Your task to perform on an android device: Clear the shopping cart on amazon. Search for "usb-c" on amazon, select the first entry, add it to the cart, then select checkout. Image 0: 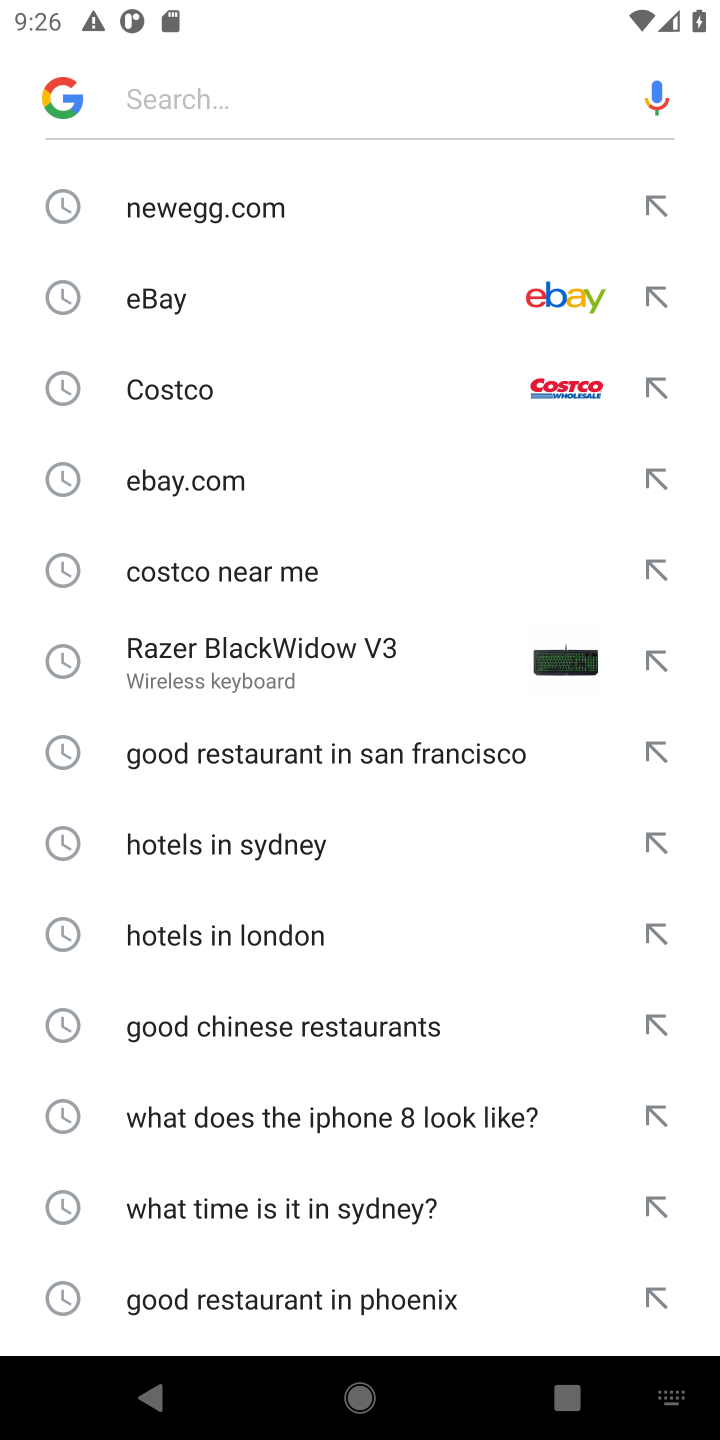
Step 0: click (198, 112)
Your task to perform on an android device: Clear the shopping cart on amazon. Search for "usb-c" on amazon, select the first entry, add it to the cart, then select checkout. Image 1: 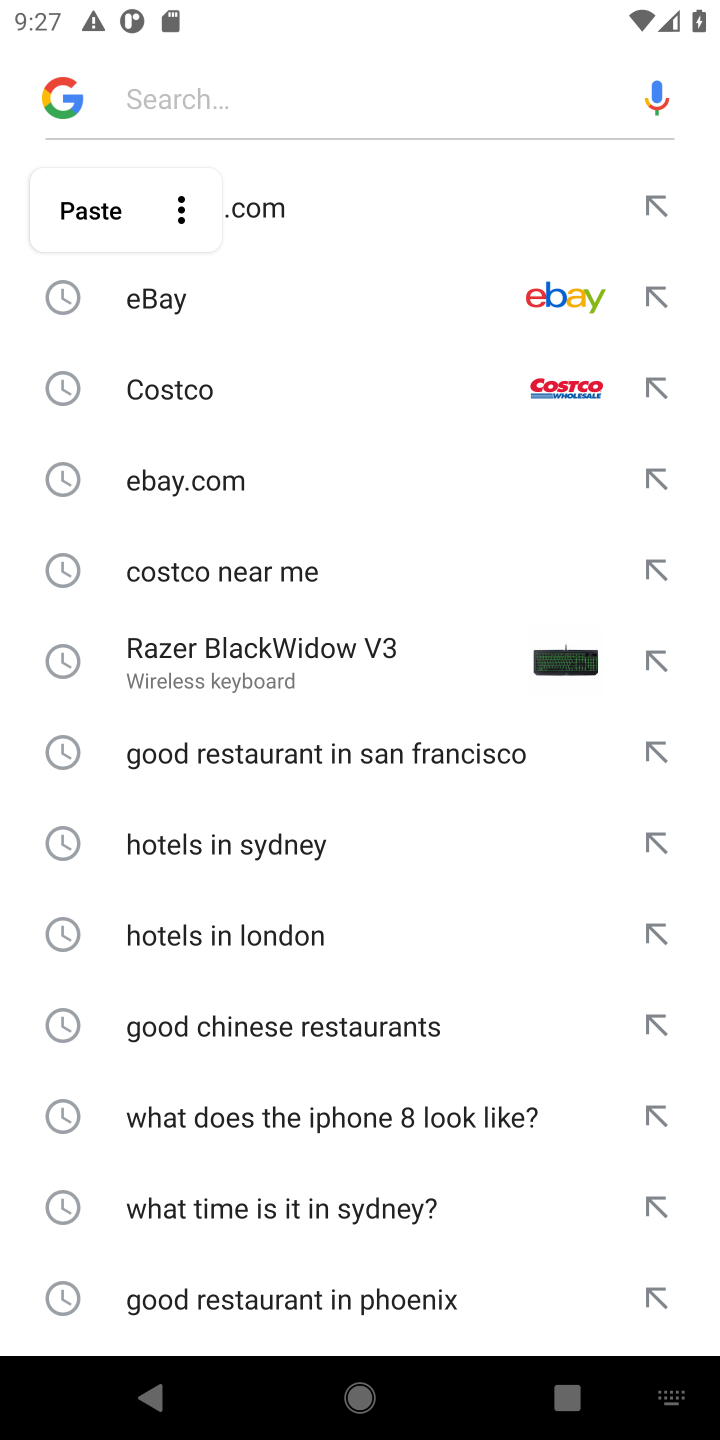
Step 1: type "amazon.com"
Your task to perform on an android device: Clear the shopping cart on amazon. Search for "usb-c" on amazon, select the first entry, add it to the cart, then select checkout. Image 2: 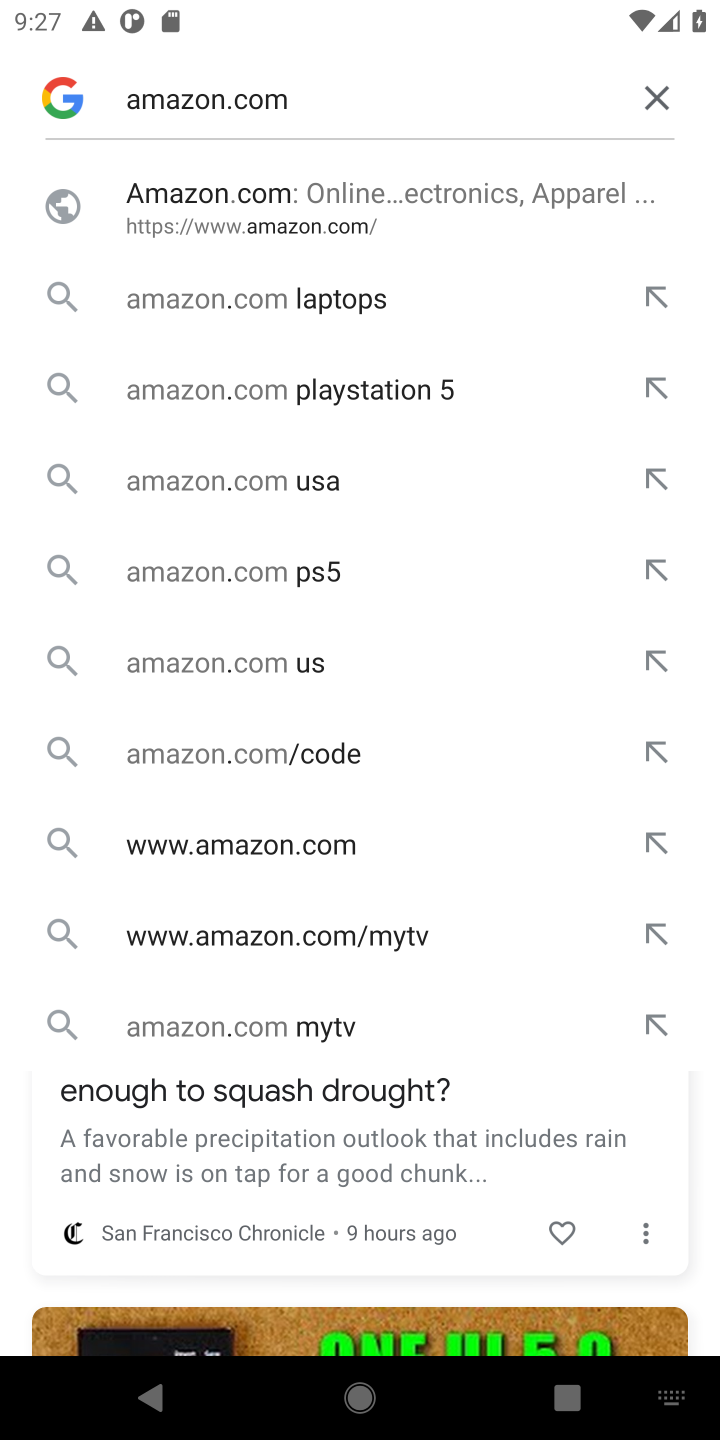
Step 2: click (198, 214)
Your task to perform on an android device: Clear the shopping cart on amazon. Search for "usb-c" on amazon, select the first entry, add it to the cart, then select checkout. Image 3: 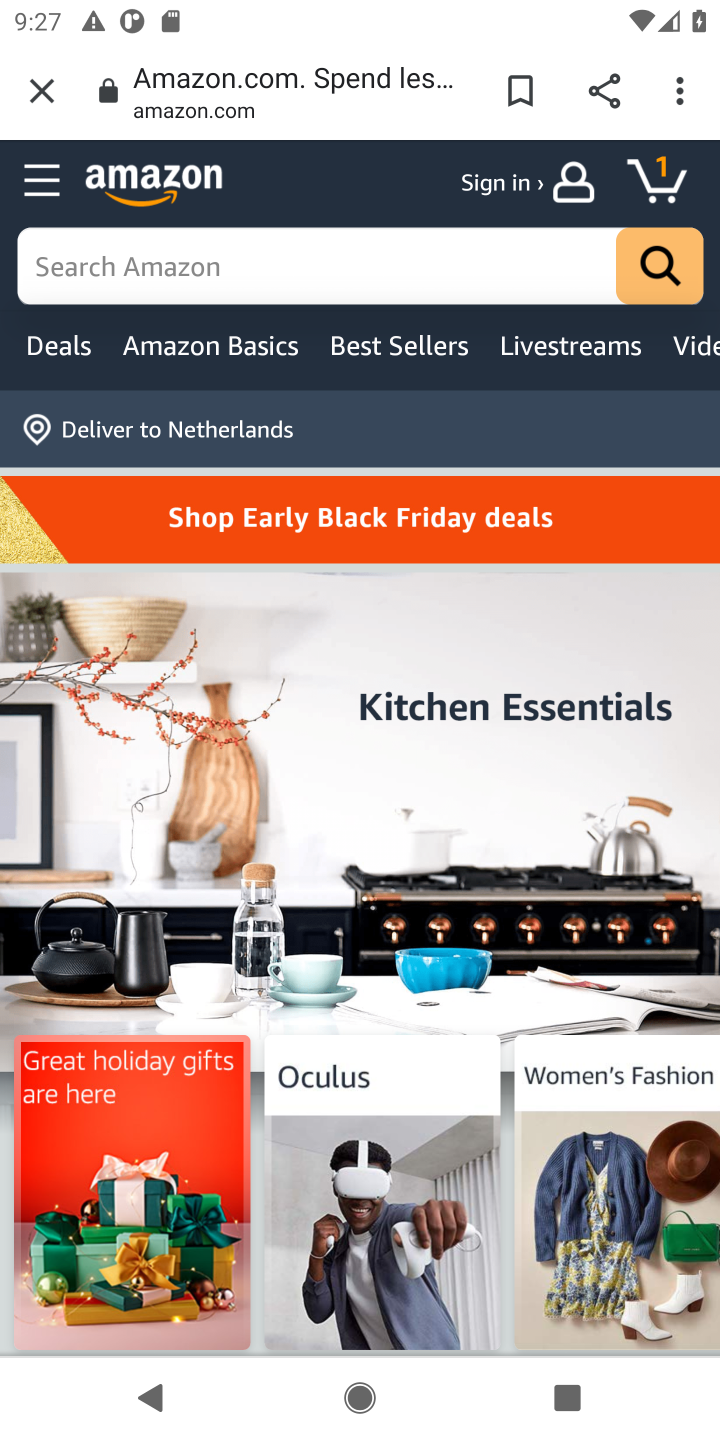
Step 3: click (321, 265)
Your task to perform on an android device: Clear the shopping cart on amazon. Search for "usb-c" on amazon, select the first entry, add it to the cart, then select checkout. Image 4: 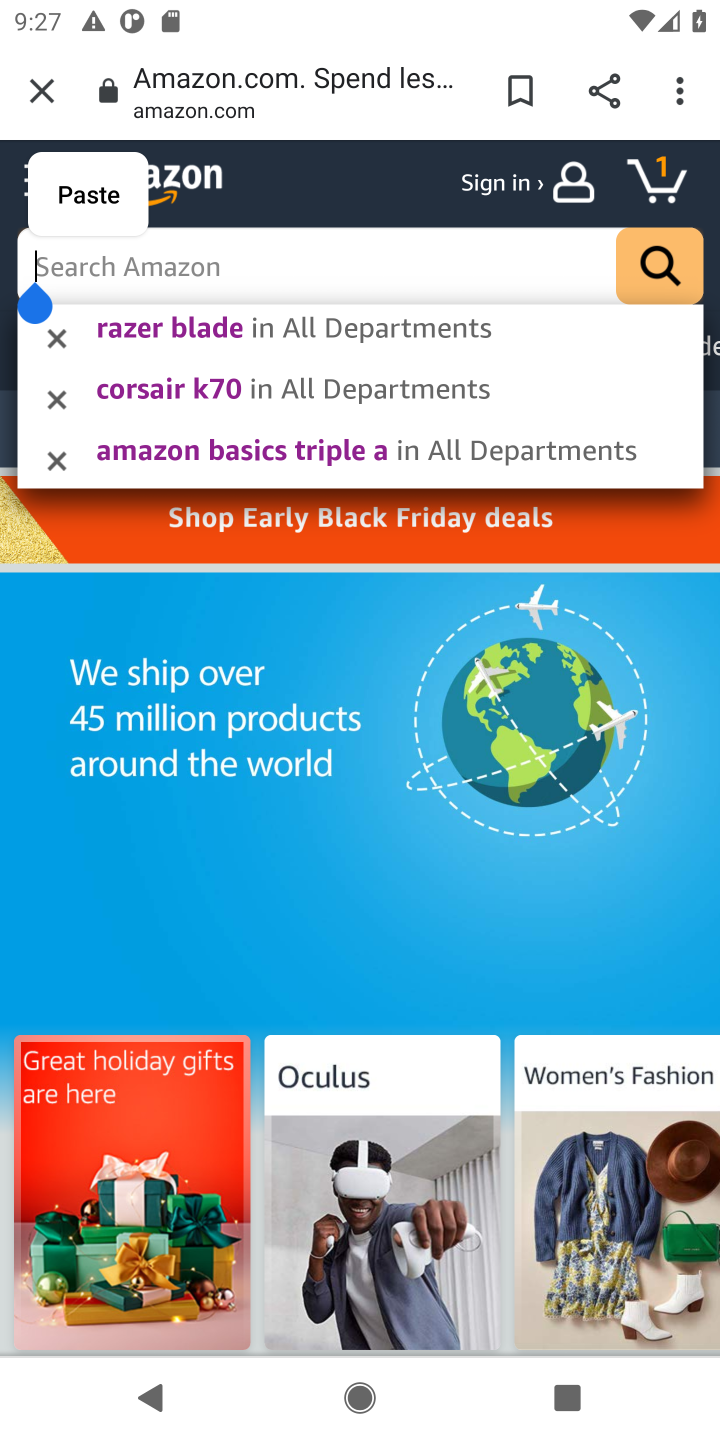
Step 4: type "usb-c"
Your task to perform on an android device: Clear the shopping cart on amazon. Search for "usb-c" on amazon, select the first entry, add it to the cart, then select checkout. Image 5: 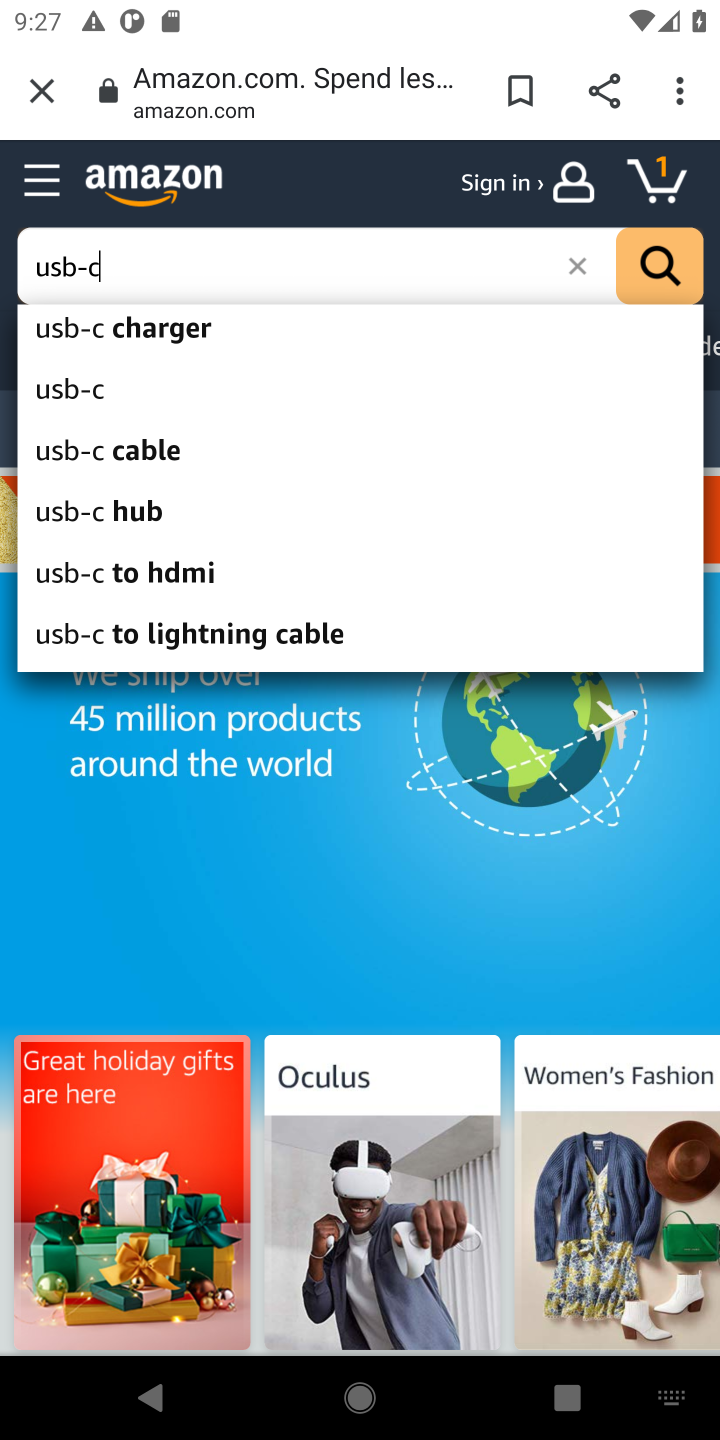
Step 5: click (97, 402)
Your task to perform on an android device: Clear the shopping cart on amazon. Search for "usb-c" on amazon, select the first entry, add it to the cart, then select checkout. Image 6: 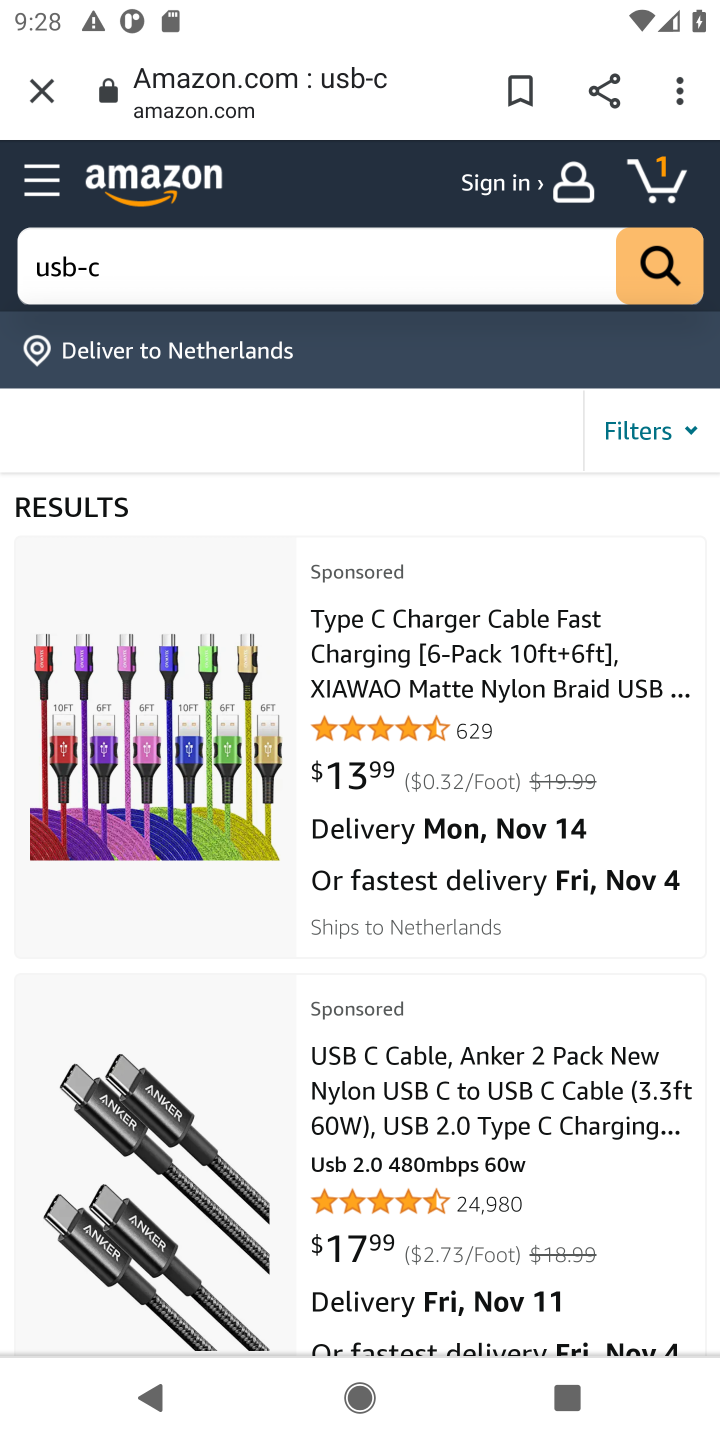
Step 6: click (342, 728)
Your task to perform on an android device: Clear the shopping cart on amazon. Search for "usb-c" on amazon, select the first entry, add it to the cart, then select checkout. Image 7: 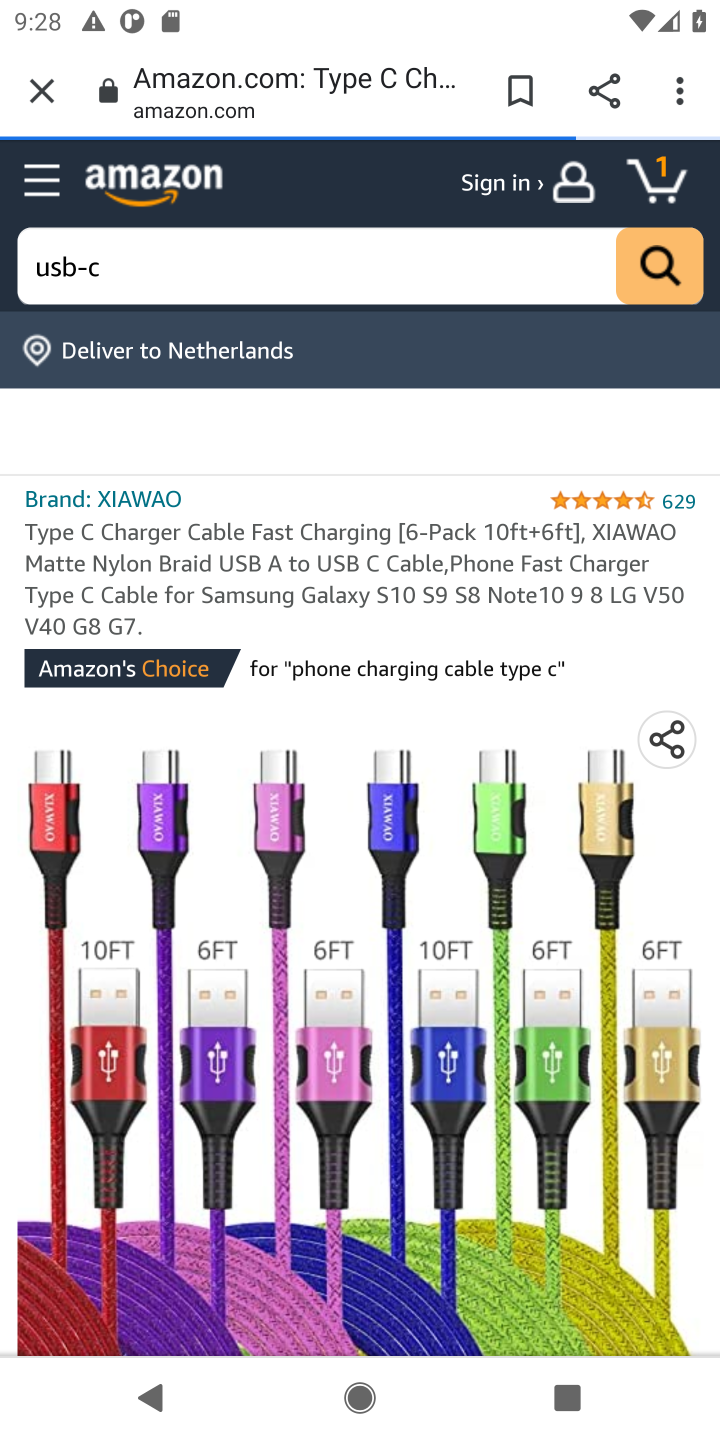
Step 7: drag from (264, 1164) to (267, 712)
Your task to perform on an android device: Clear the shopping cart on amazon. Search for "usb-c" on amazon, select the first entry, add it to the cart, then select checkout. Image 8: 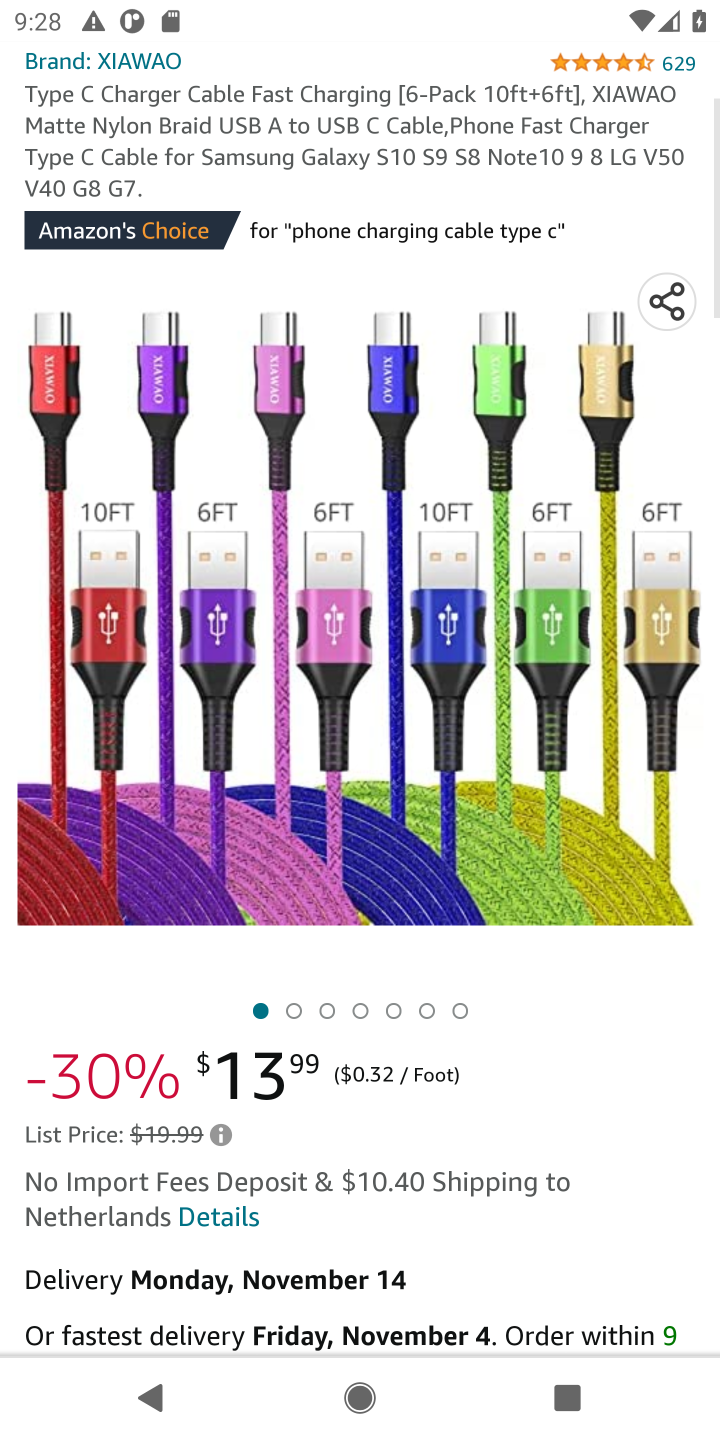
Step 8: drag from (270, 1256) to (308, 602)
Your task to perform on an android device: Clear the shopping cart on amazon. Search for "usb-c" on amazon, select the first entry, add it to the cart, then select checkout. Image 9: 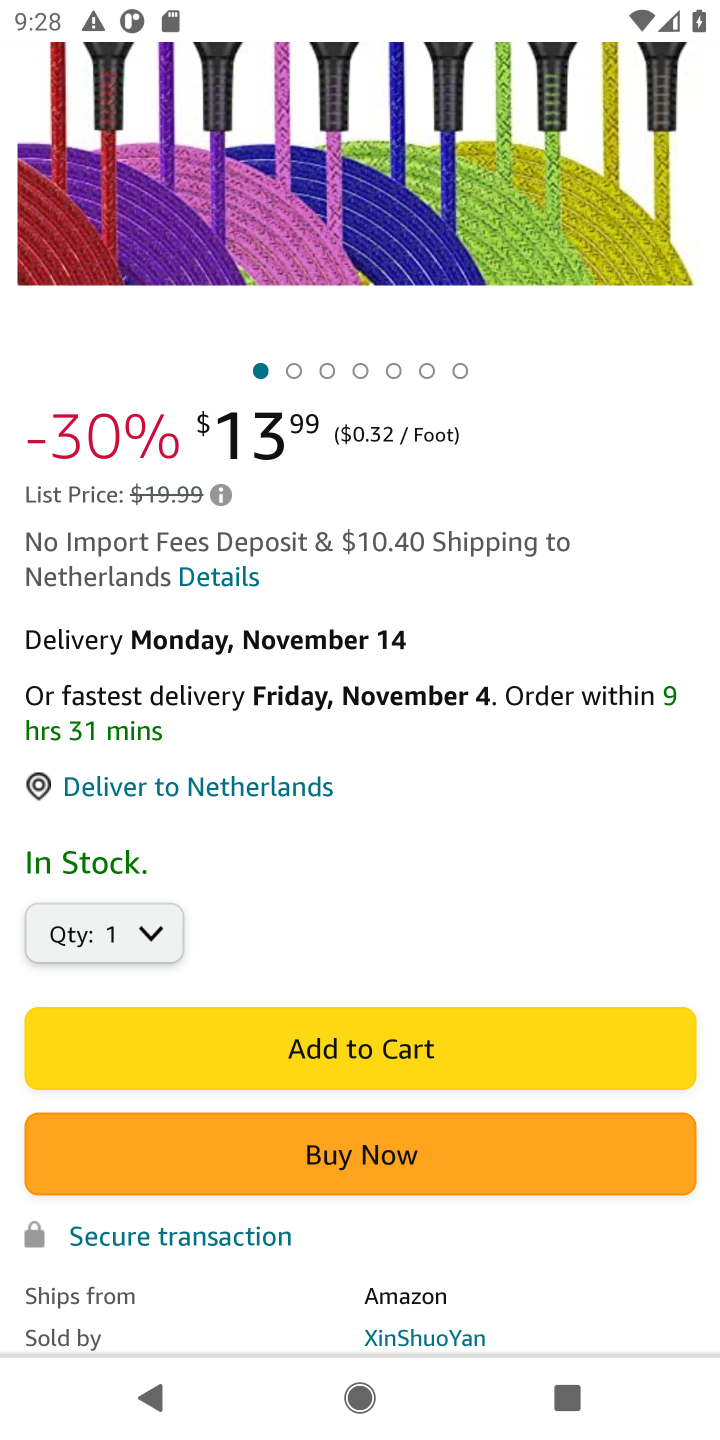
Step 9: click (344, 1043)
Your task to perform on an android device: Clear the shopping cart on amazon. Search for "usb-c" on amazon, select the first entry, add it to the cart, then select checkout. Image 10: 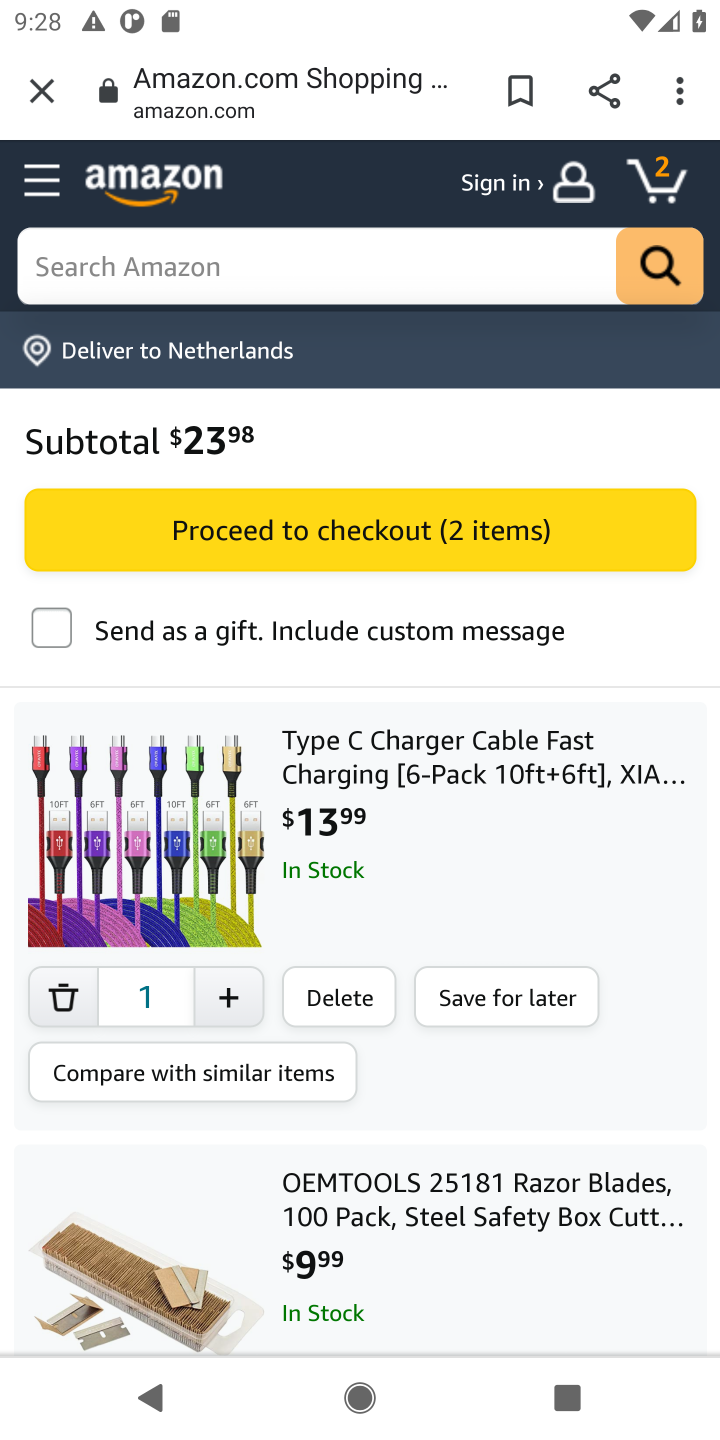
Step 10: click (307, 551)
Your task to perform on an android device: Clear the shopping cart on amazon. Search for "usb-c" on amazon, select the first entry, add it to the cart, then select checkout. Image 11: 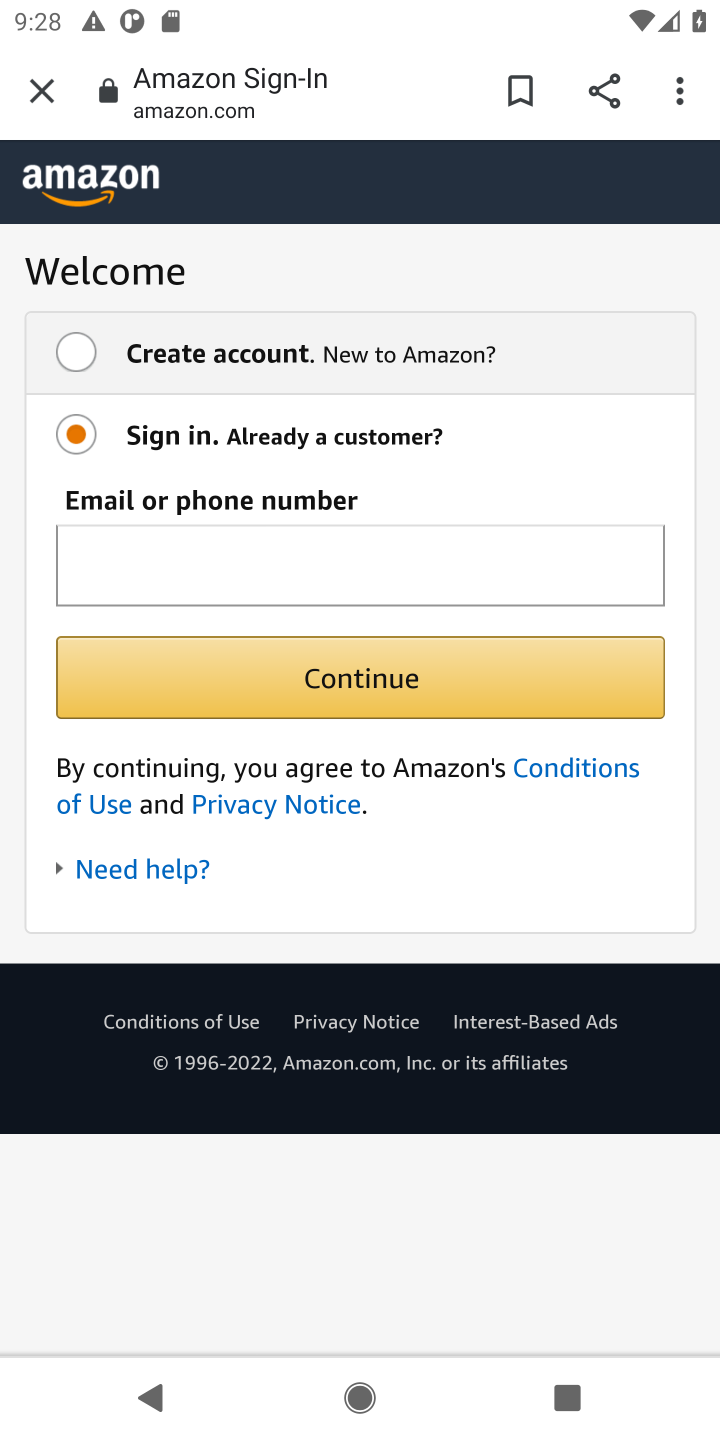
Step 11: task complete